Your task to perform on an android device: Go to notification settings Image 0: 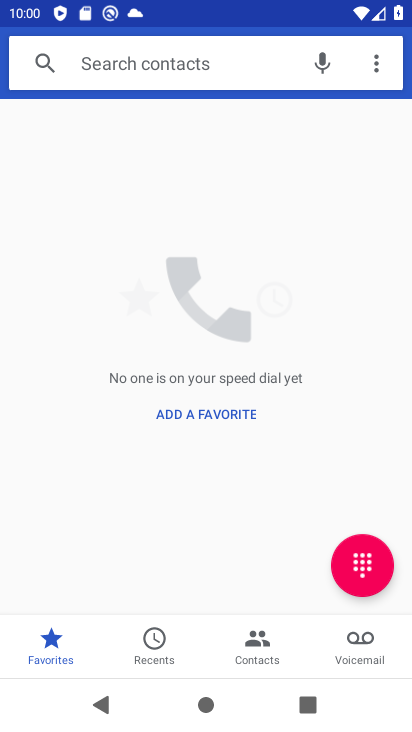
Step 0: press home button
Your task to perform on an android device: Go to notification settings Image 1: 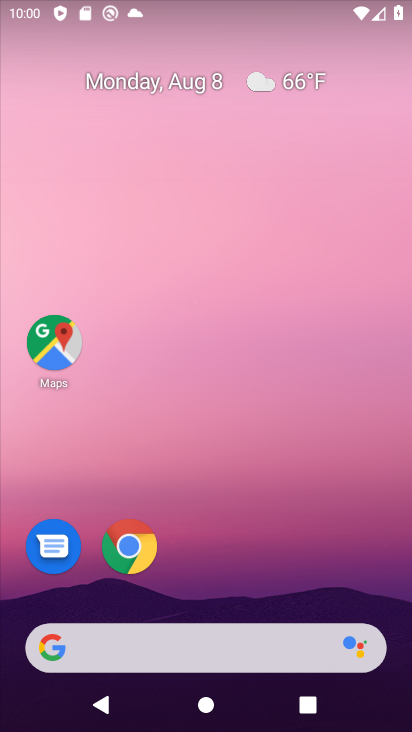
Step 1: drag from (243, 513) to (308, 63)
Your task to perform on an android device: Go to notification settings Image 2: 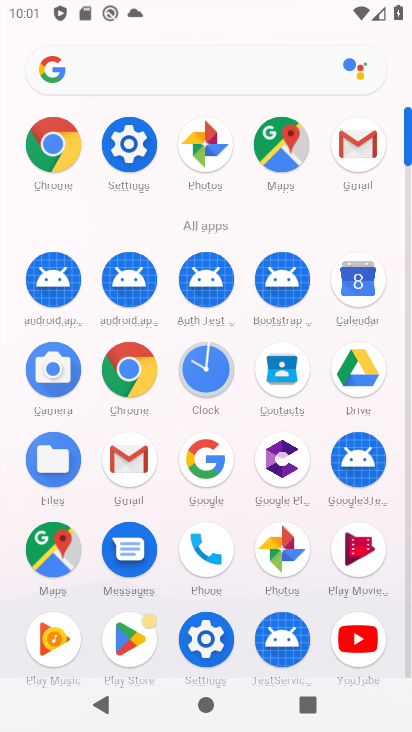
Step 2: click (214, 645)
Your task to perform on an android device: Go to notification settings Image 3: 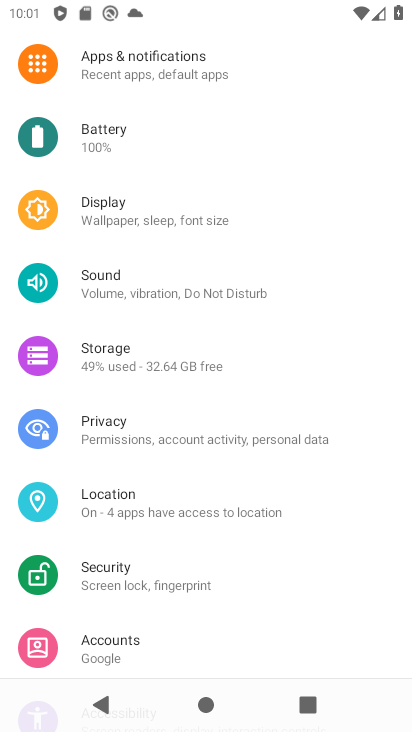
Step 3: click (156, 52)
Your task to perform on an android device: Go to notification settings Image 4: 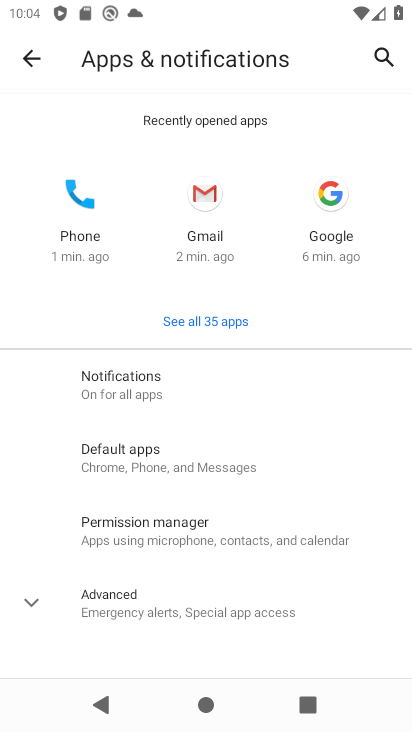
Step 4: task complete